Your task to perform on an android device: turn off improve location accuracy Image 0: 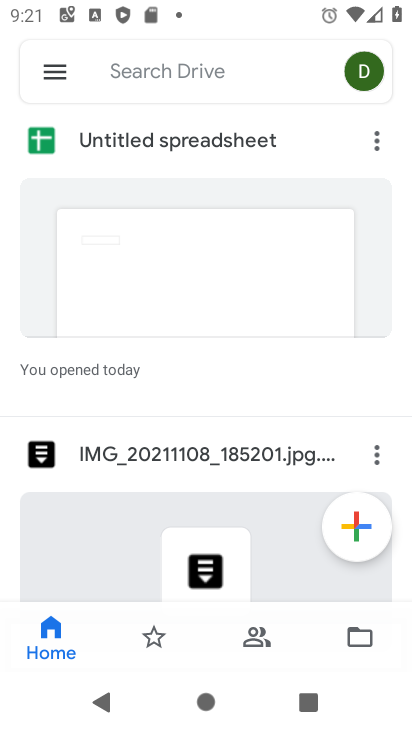
Step 0: press back button
Your task to perform on an android device: turn off improve location accuracy Image 1: 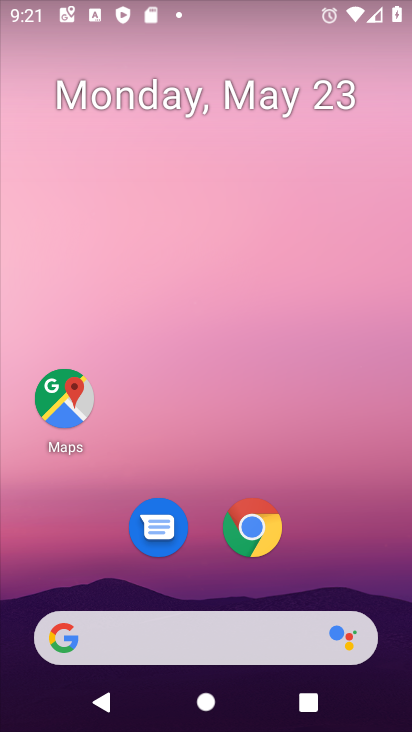
Step 1: drag from (330, 525) to (285, 45)
Your task to perform on an android device: turn off improve location accuracy Image 2: 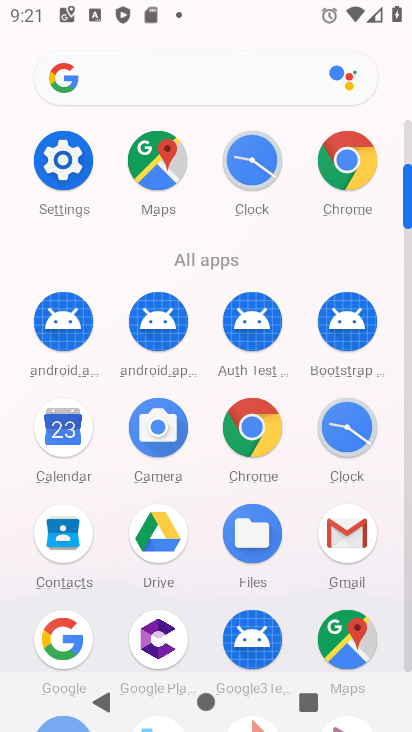
Step 2: drag from (11, 561) to (39, 172)
Your task to perform on an android device: turn off improve location accuracy Image 3: 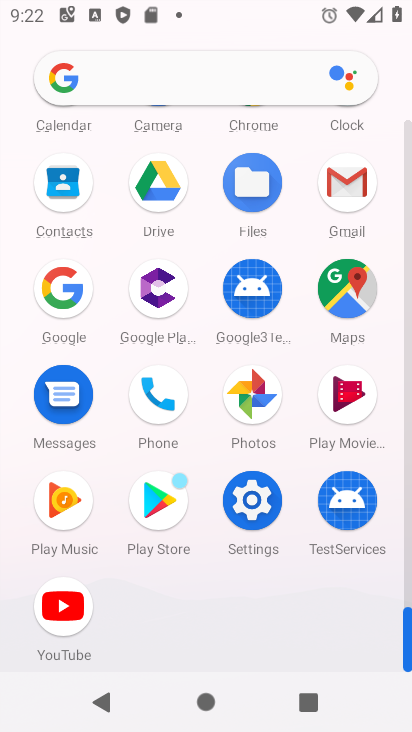
Step 3: click (251, 495)
Your task to perform on an android device: turn off improve location accuracy Image 4: 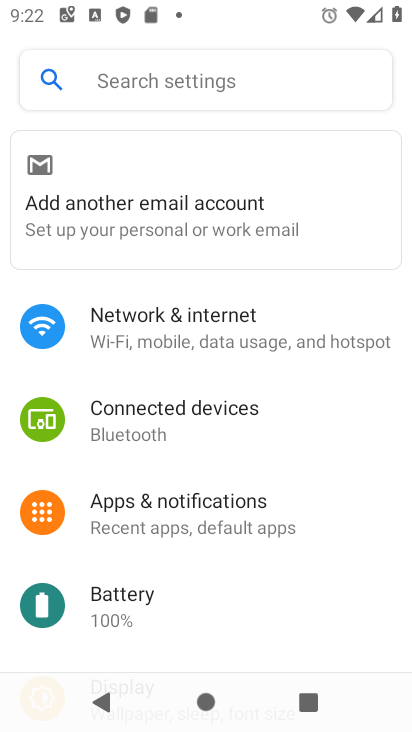
Step 4: drag from (289, 557) to (308, 152)
Your task to perform on an android device: turn off improve location accuracy Image 5: 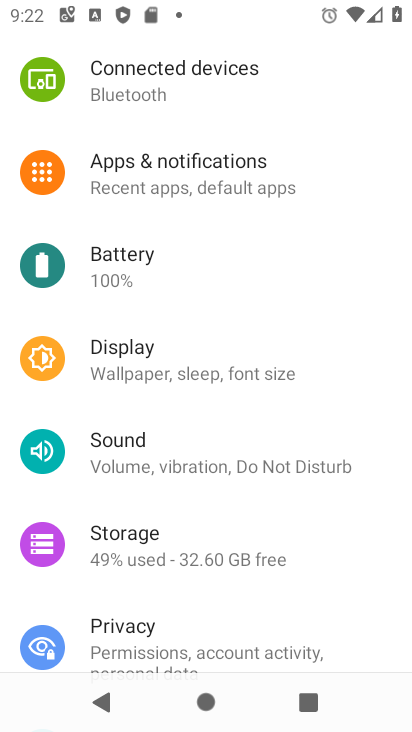
Step 5: drag from (290, 515) to (324, 99)
Your task to perform on an android device: turn off improve location accuracy Image 6: 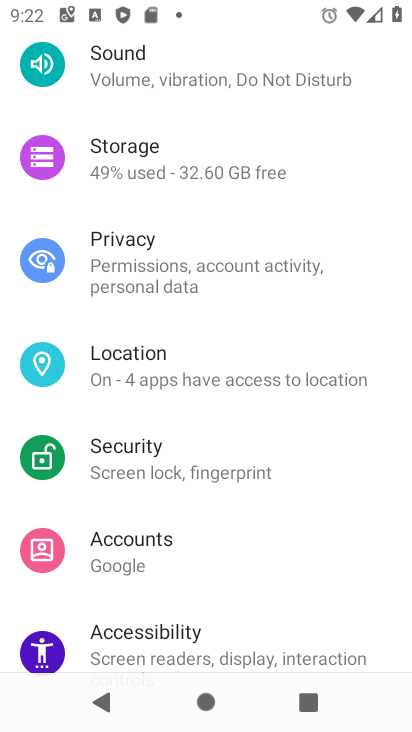
Step 6: click (197, 364)
Your task to perform on an android device: turn off improve location accuracy Image 7: 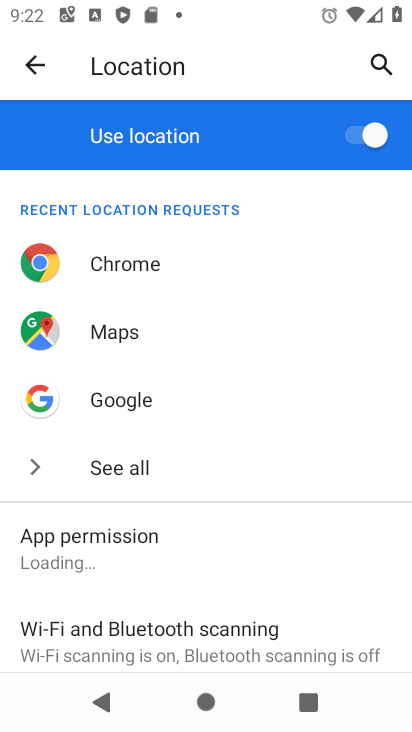
Step 7: drag from (273, 558) to (289, 184)
Your task to perform on an android device: turn off improve location accuracy Image 8: 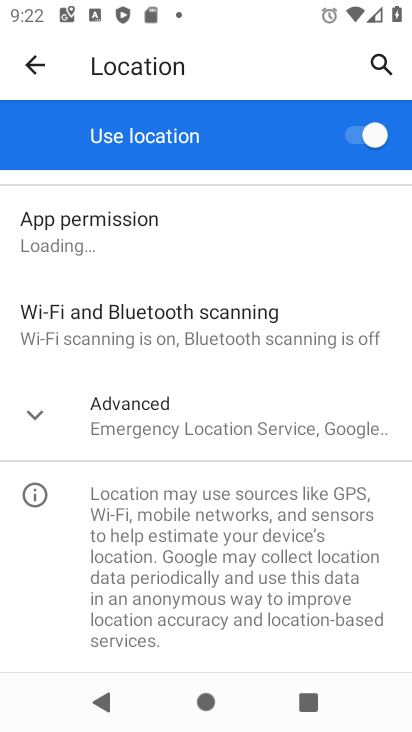
Step 8: click (60, 420)
Your task to perform on an android device: turn off improve location accuracy Image 9: 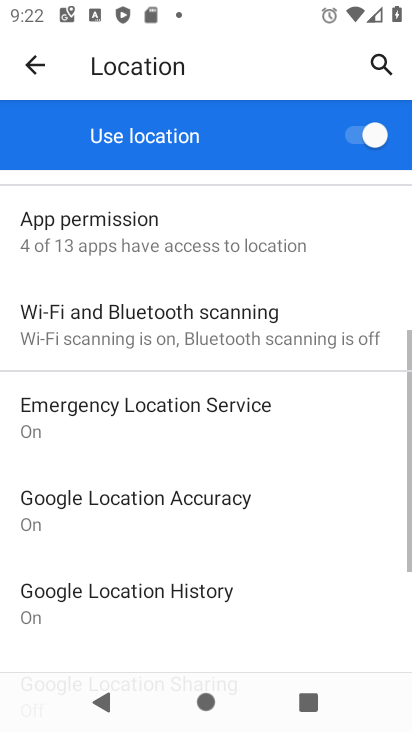
Step 9: drag from (303, 552) to (344, 254)
Your task to perform on an android device: turn off improve location accuracy Image 10: 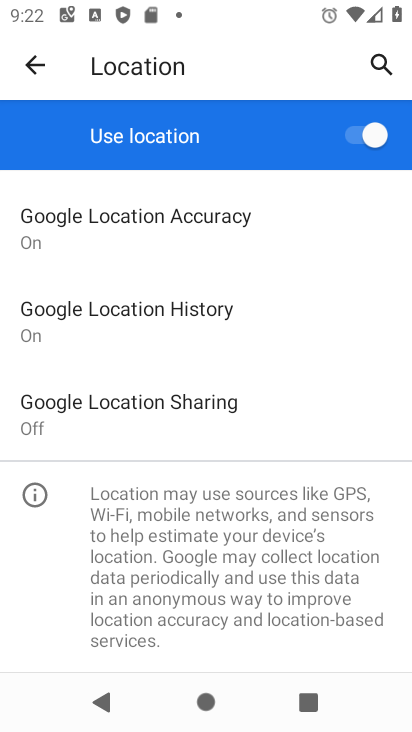
Step 10: click (247, 229)
Your task to perform on an android device: turn off improve location accuracy Image 11: 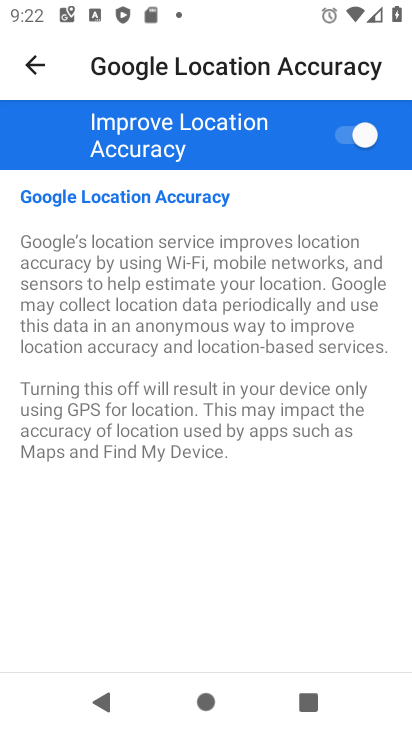
Step 11: click (342, 121)
Your task to perform on an android device: turn off improve location accuracy Image 12: 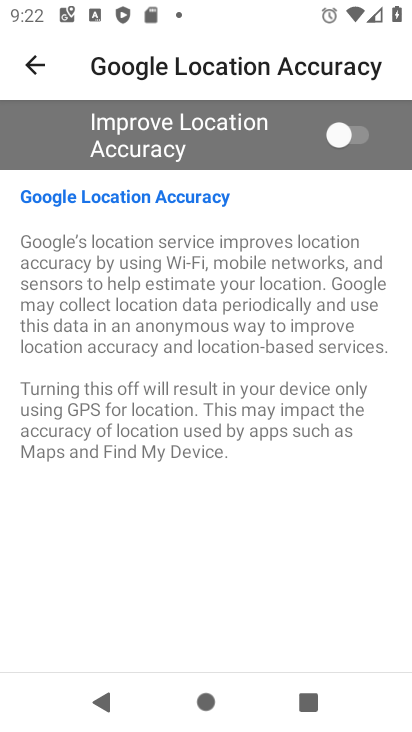
Step 12: task complete